Your task to perform on an android device: turn pop-ups on in chrome Image 0: 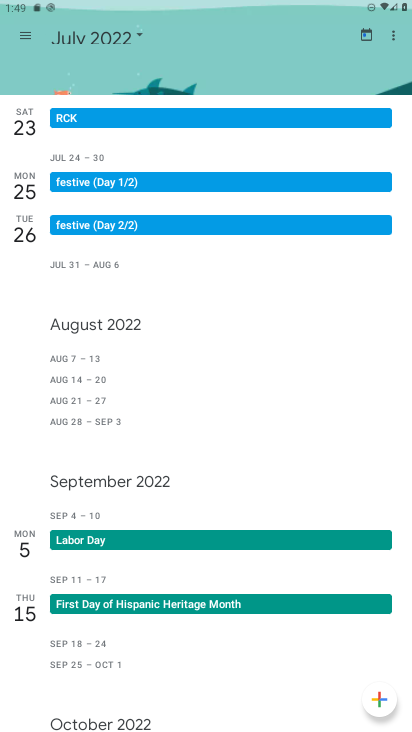
Step 0: press home button
Your task to perform on an android device: turn pop-ups on in chrome Image 1: 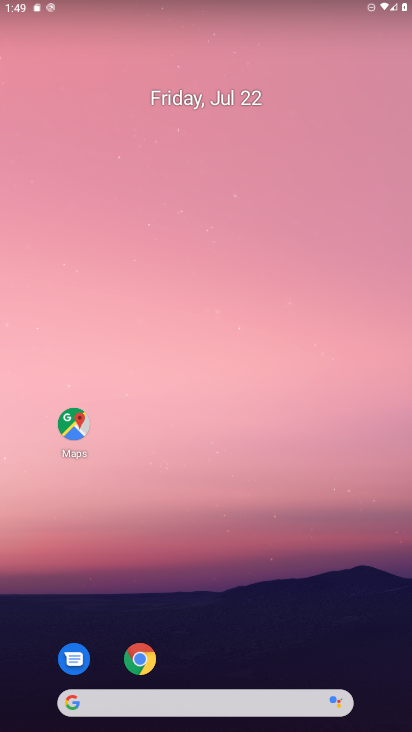
Step 1: click (141, 660)
Your task to perform on an android device: turn pop-ups on in chrome Image 2: 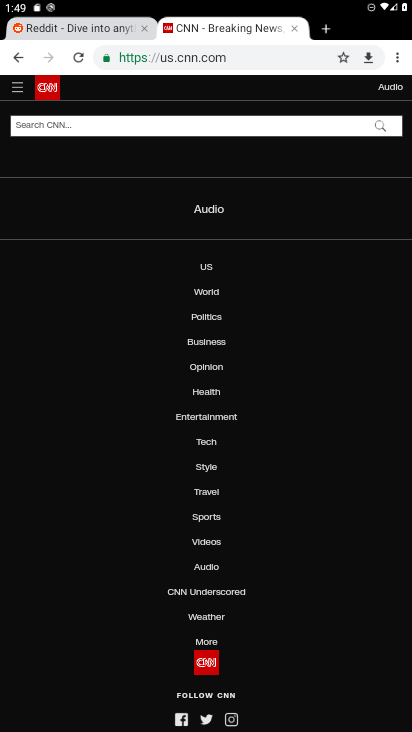
Step 2: click (398, 59)
Your task to perform on an android device: turn pop-ups on in chrome Image 3: 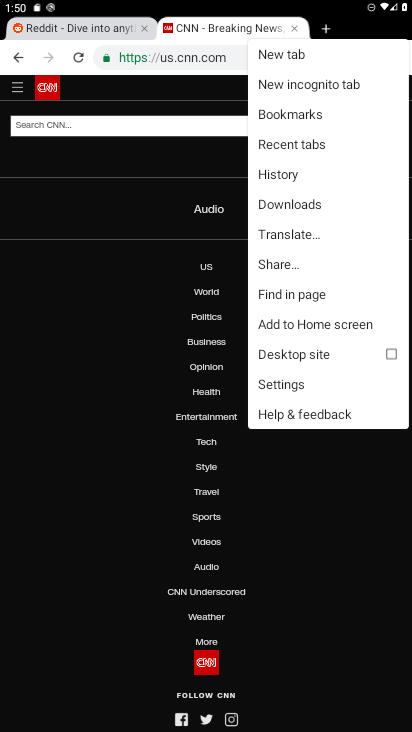
Step 3: click (287, 381)
Your task to perform on an android device: turn pop-ups on in chrome Image 4: 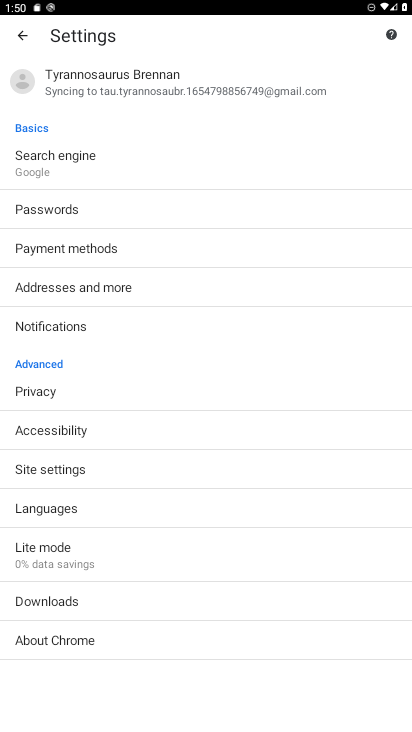
Step 4: click (52, 468)
Your task to perform on an android device: turn pop-ups on in chrome Image 5: 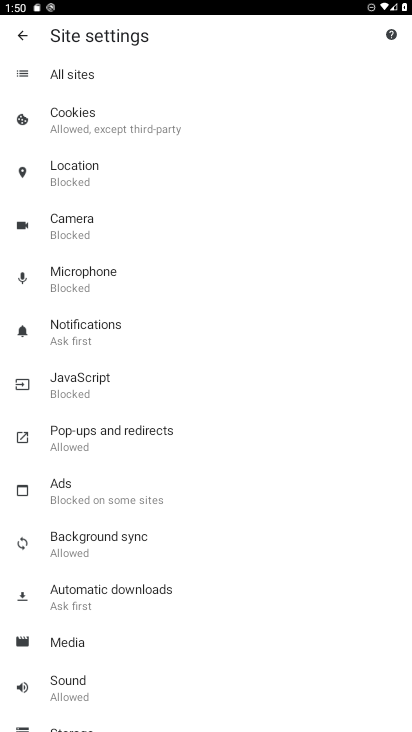
Step 5: click (94, 427)
Your task to perform on an android device: turn pop-ups on in chrome Image 6: 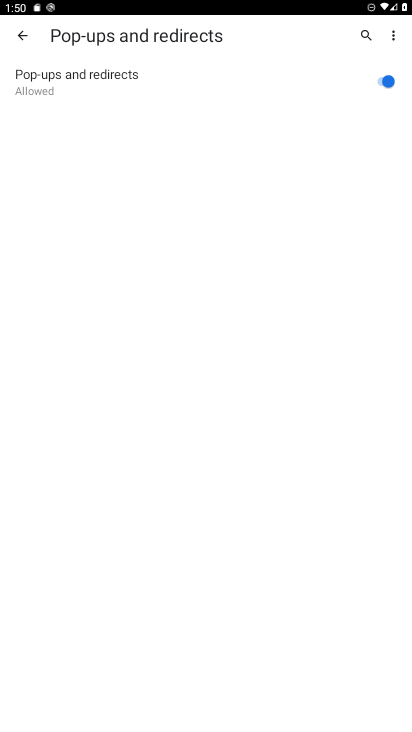
Step 6: task complete